Your task to perform on an android device: What is the recent news? Image 0: 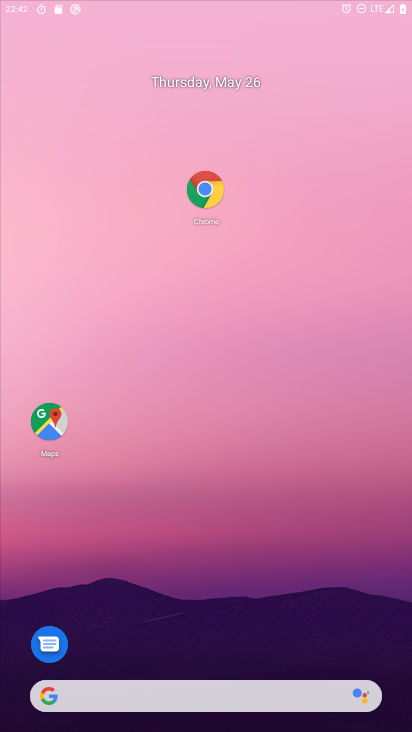
Step 0: click (395, 501)
Your task to perform on an android device: What is the recent news? Image 1: 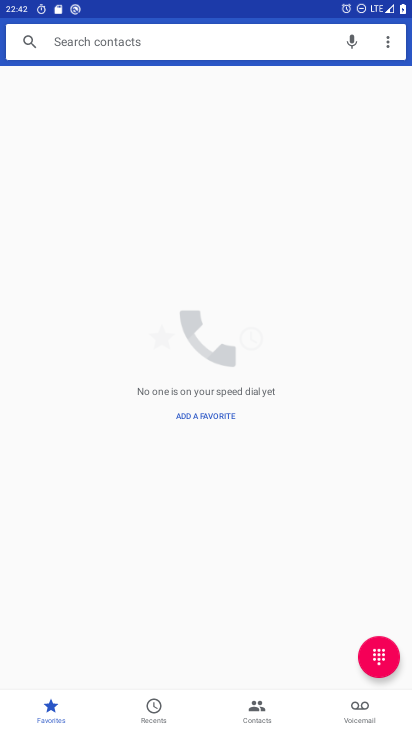
Step 1: drag from (121, 644) to (155, 222)
Your task to perform on an android device: What is the recent news? Image 2: 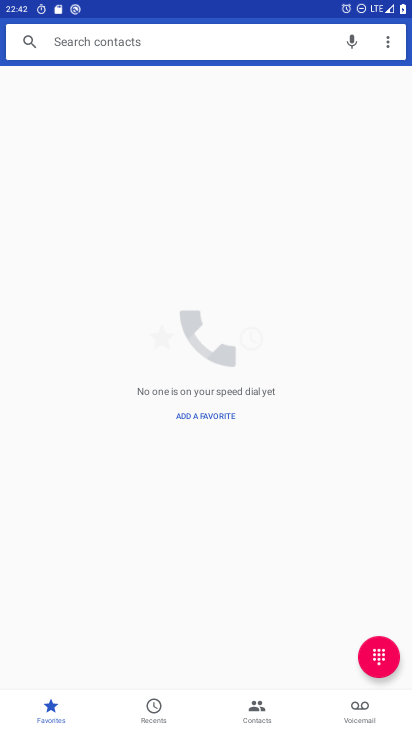
Step 2: press home button
Your task to perform on an android device: What is the recent news? Image 3: 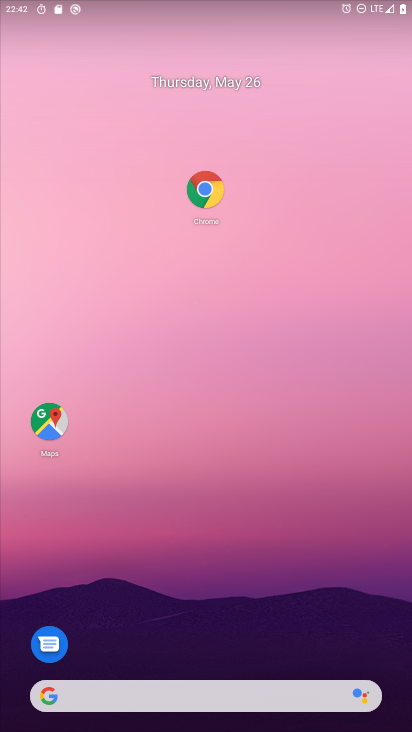
Step 3: drag from (186, 656) to (109, 1)
Your task to perform on an android device: What is the recent news? Image 4: 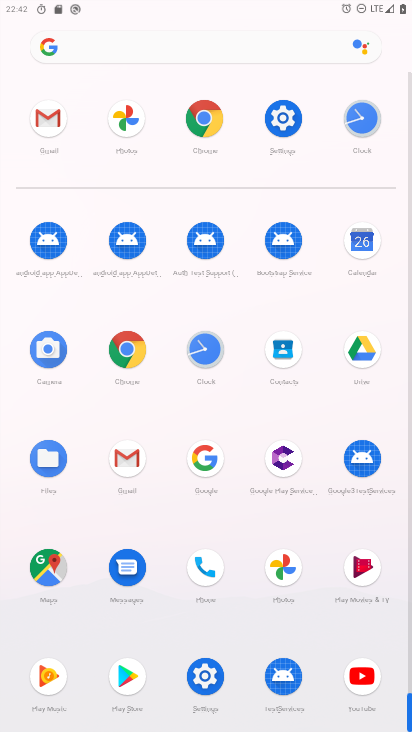
Step 4: click (119, 42)
Your task to perform on an android device: What is the recent news? Image 5: 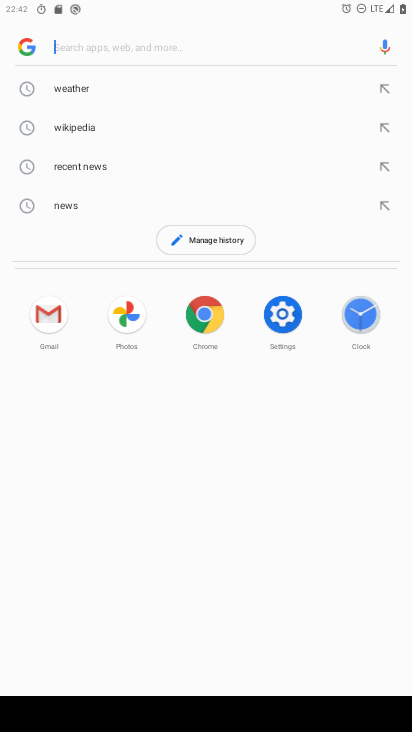
Step 5: click (95, 172)
Your task to perform on an android device: What is the recent news? Image 6: 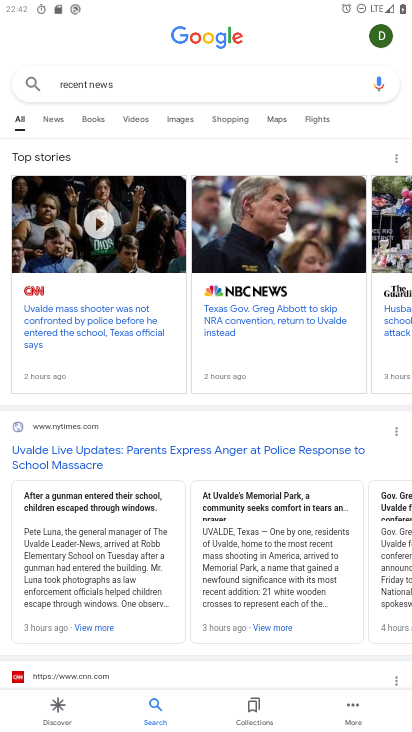
Step 6: task complete